Your task to perform on an android device: Set the phone to "Do not disturb". Image 0: 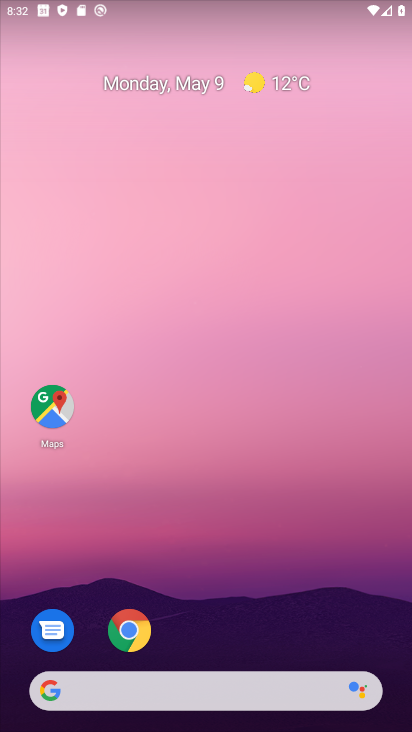
Step 0: task complete